Your task to perform on an android device: Go to notification settings Image 0: 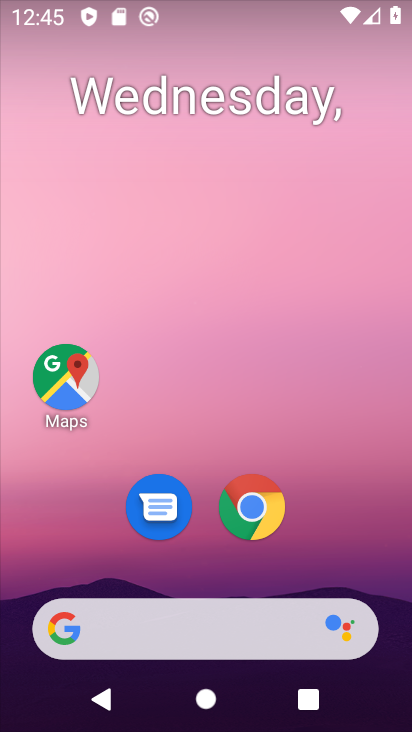
Step 0: drag from (323, 383) to (350, 129)
Your task to perform on an android device: Go to notification settings Image 1: 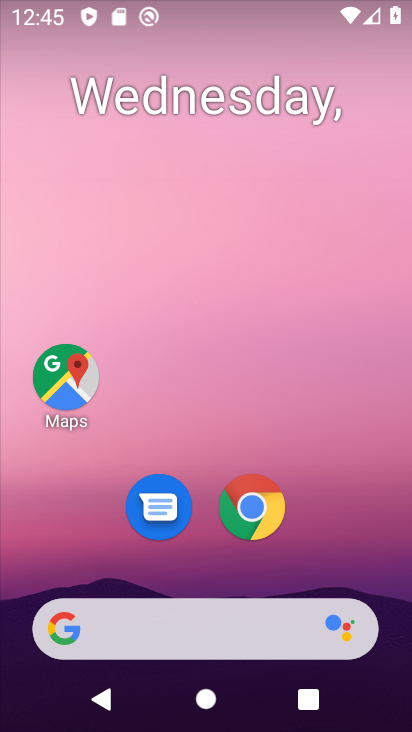
Step 1: drag from (333, 535) to (356, 50)
Your task to perform on an android device: Go to notification settings Image 2: 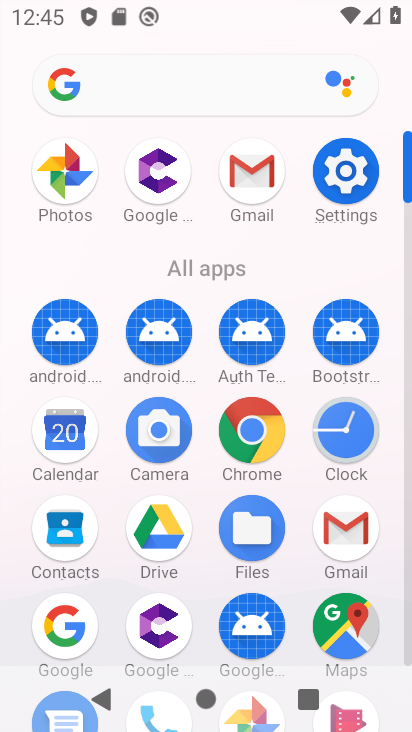
Step 2: click (345, 163)
Your task to perform on an android device: Go to notification settings Image 3: 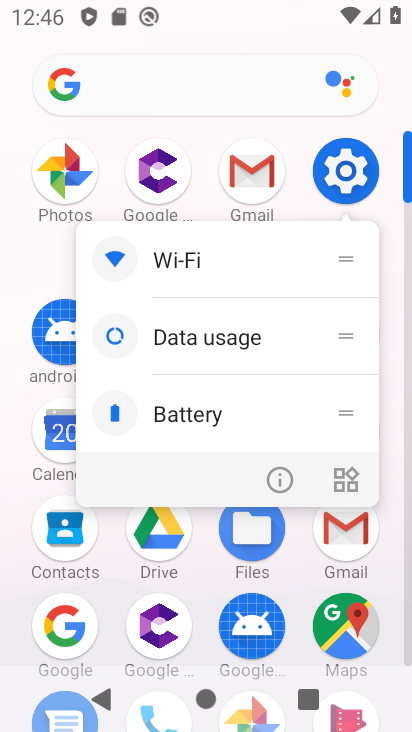
Step 3: click (339, 179)
Your task to perform on an android device: Go to notification settings Image 4: 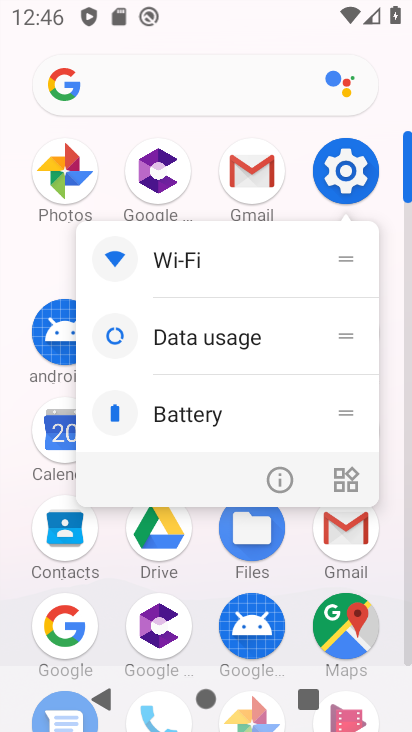
Step 4: click (339, 179)
Your task to perform on an android device: Go to notification settings Image 5: 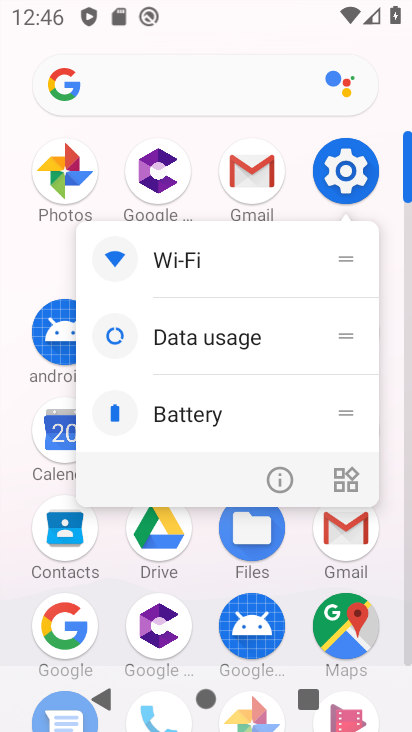
Step 5: click (339, 179)
Your task to perform on an android device: Go to notification settings Image 6: 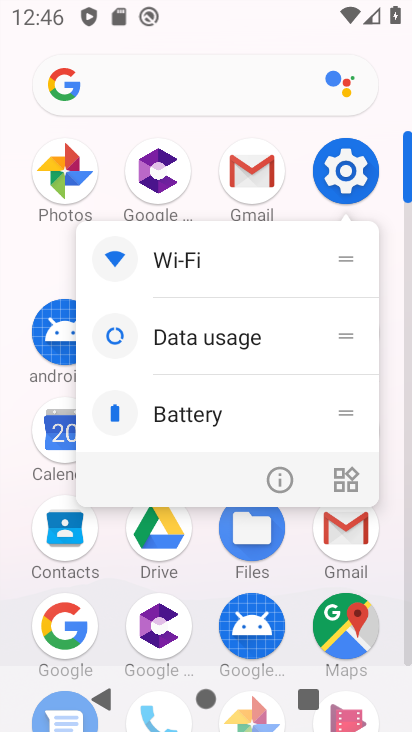
Step 6: click (339, 179)
Your task to perform on an android device: Go to notification settings Image 7: 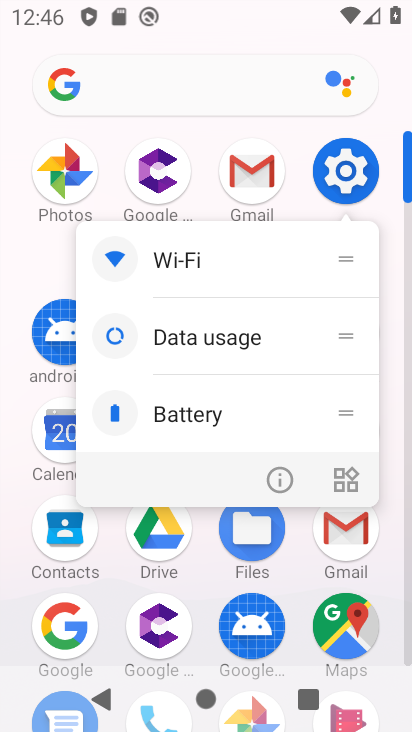
Step 7: click (339, 179)
Your task to perform on an android device: Go to notification settings Image 8: 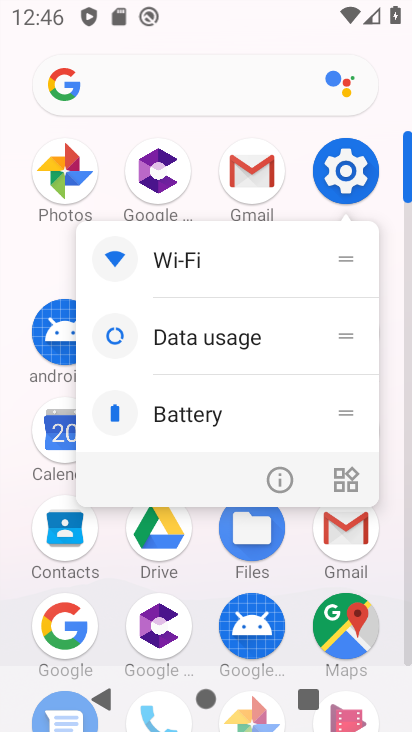
Step 8: click (339, 179)
Your task to perform on an android device: Go to notification settings Image 9: 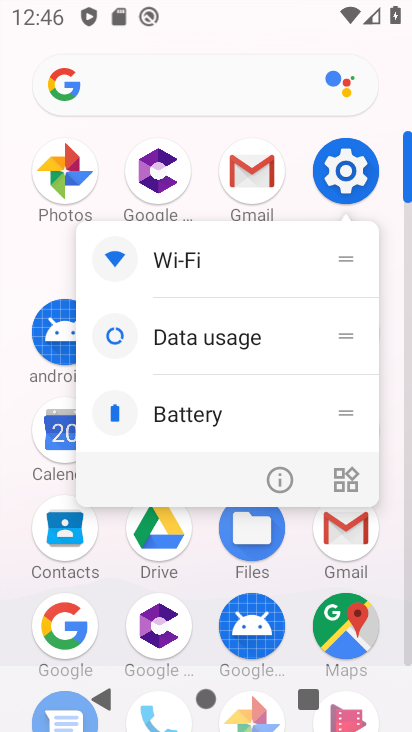
Step 9: click (339, 179)
Your task to perform on an android device: Go to notification settings Image 10: 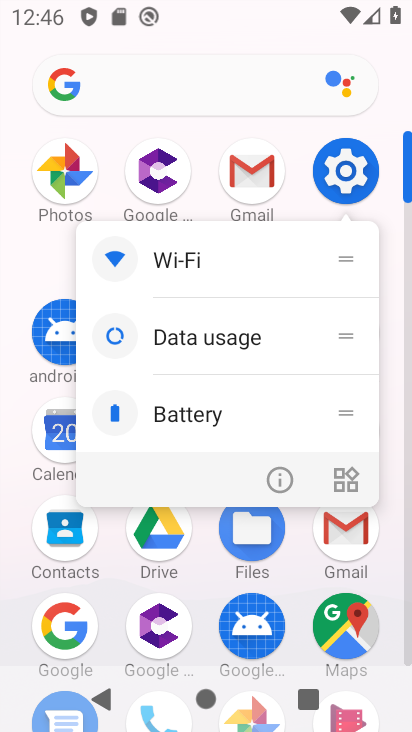
Step 10: click (339, 181)
Your task to perform on an android device: Go to notification settings Image 11: 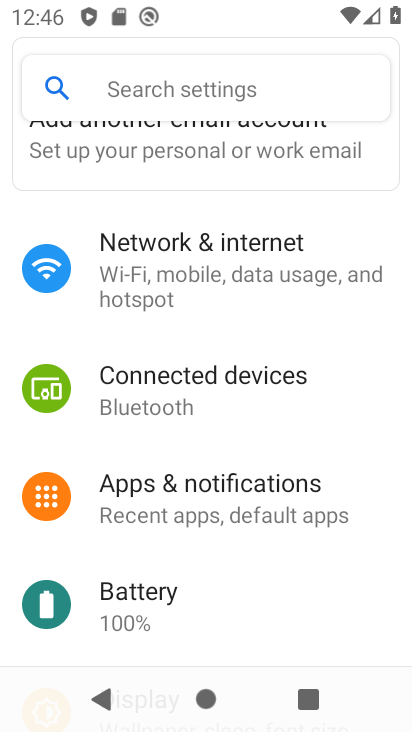
Step 11: task complete